Your task to perform on an android device: delete the emails in spam in the gmail app Image 0: 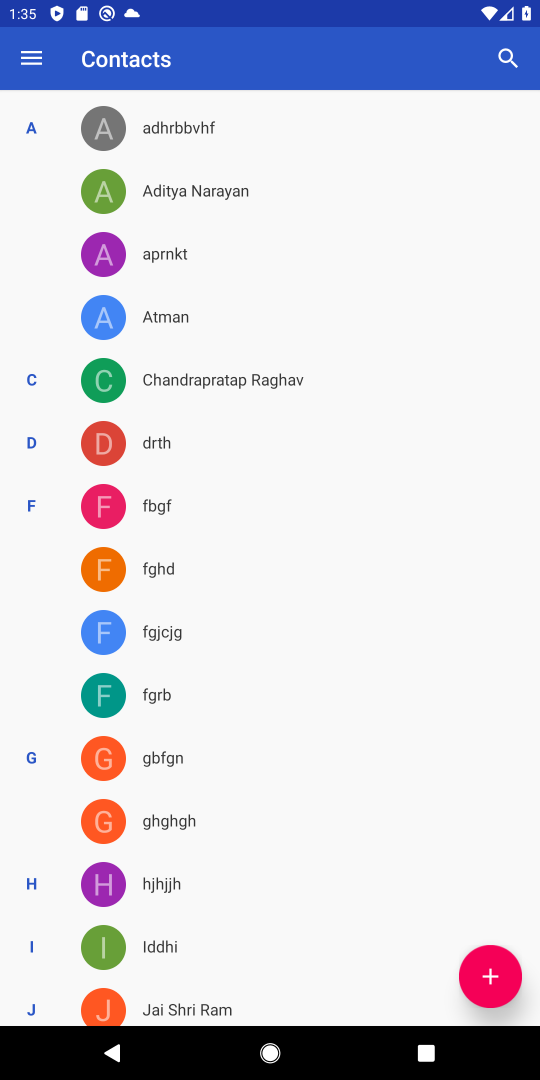
Step 0: press home button
Your task to perform on an android device: delete the emails in spam in the gmail app Image 1: 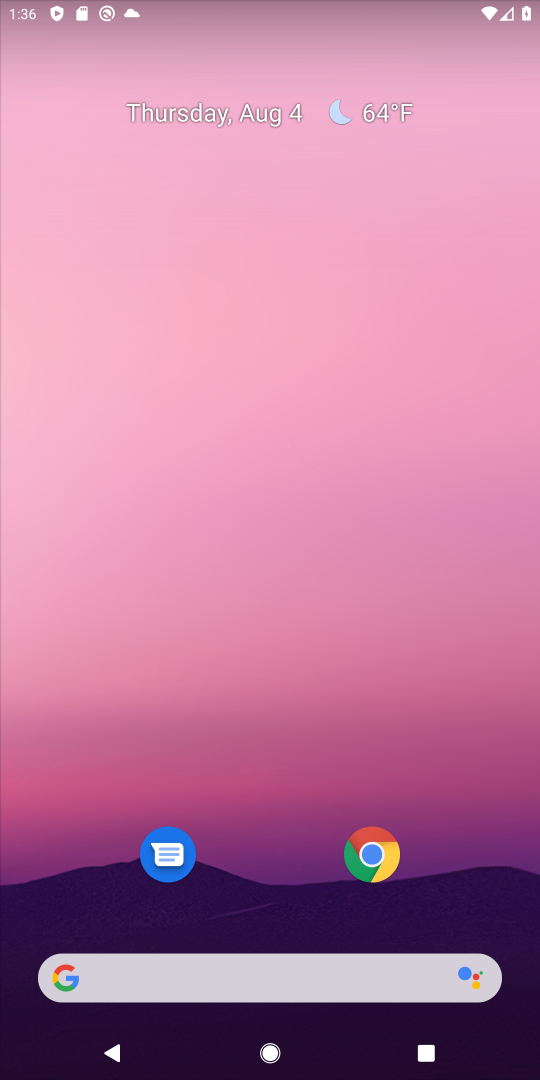
Step 1: drag from (313, 769) to (342, 141)
Your task to perform on an android device: delete the emails in spam in the gmail app Image 2: 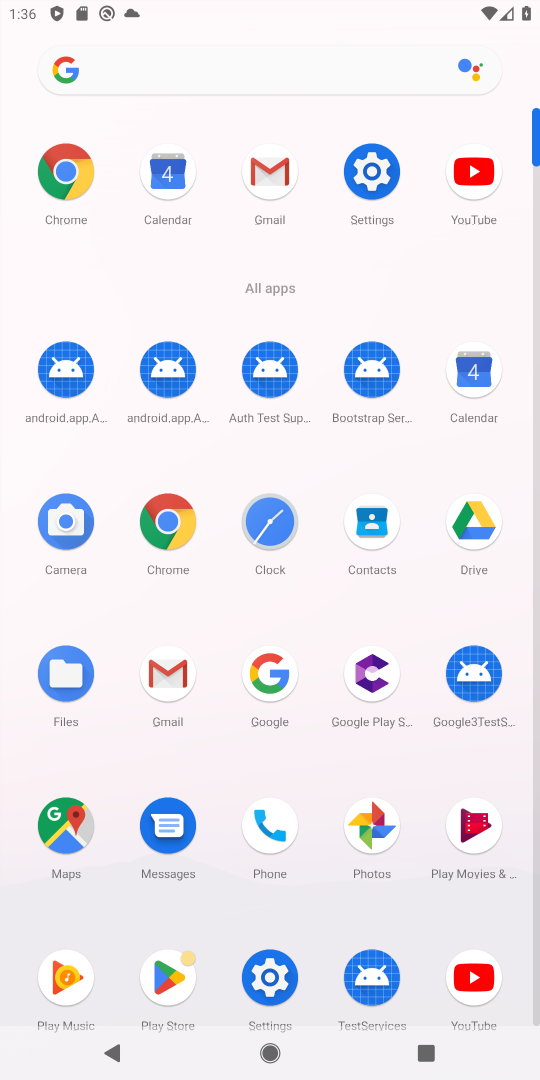
Step 2: click (173, 679)
Your task to perform on an android device: delete the emails in spam in the gmail app Image 3: 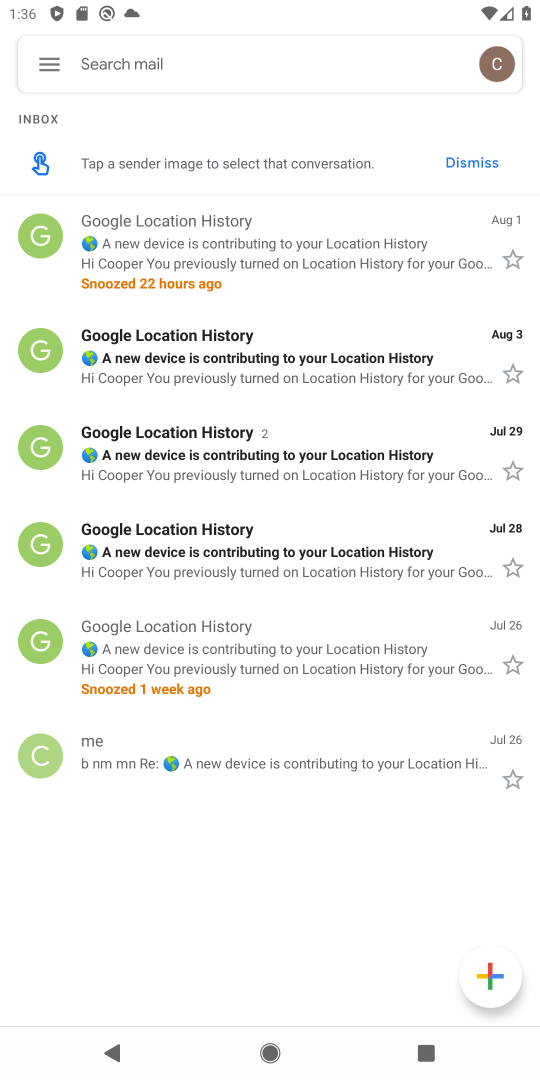
Step 3: click (55, 57)
Your task to perform on an android device: delete the emails in spam in the gmail app Image 4: 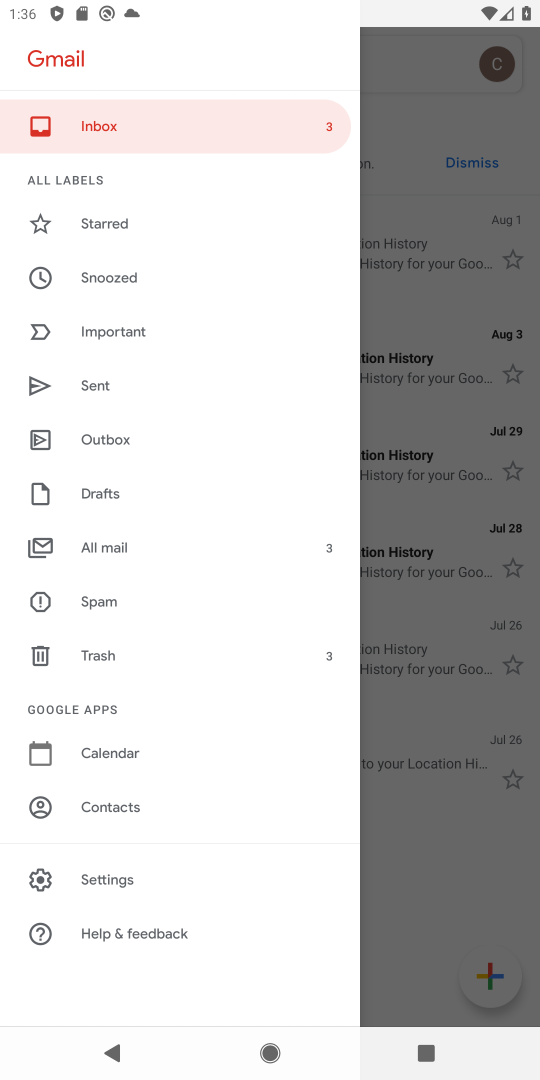
Step 4: click (89, 599)
Your task to perform on an android device: delete the emails in spam in the gmail app Image 5: 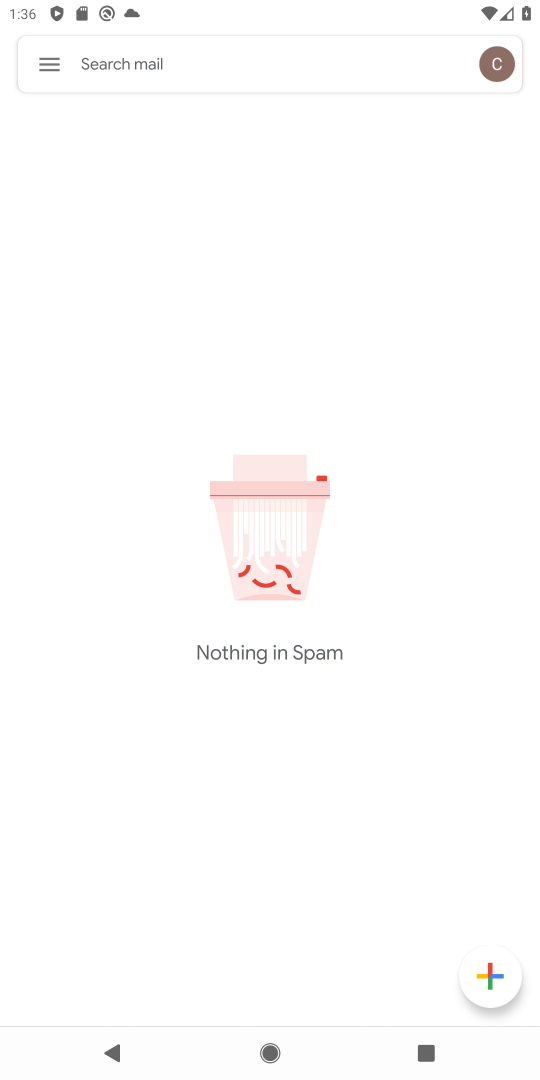
Step 5: task complete